Your task to perform on an android device: Go to accessibility settings Image 0: 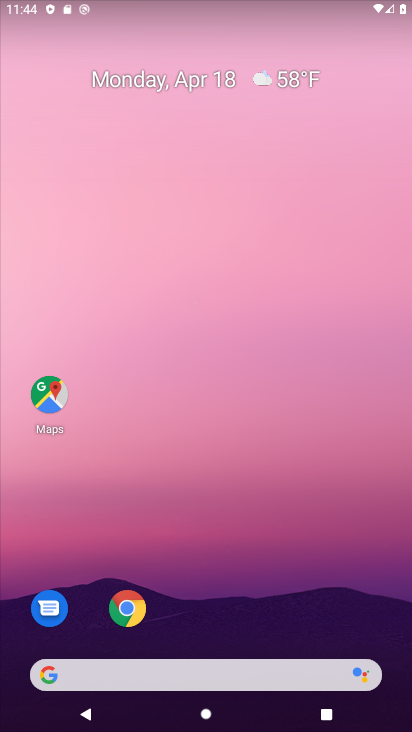
Step 0: drag from (303, 571) to (282, 137)
Your task to perform on an android device: Go to accessibility settings Image 1: 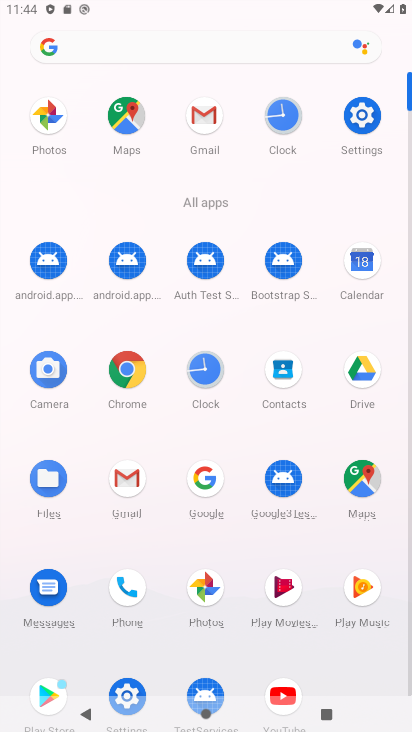
Step 1: click (357, 118)
Your task to perform on an android device: Go to accessibility settings Image 2: 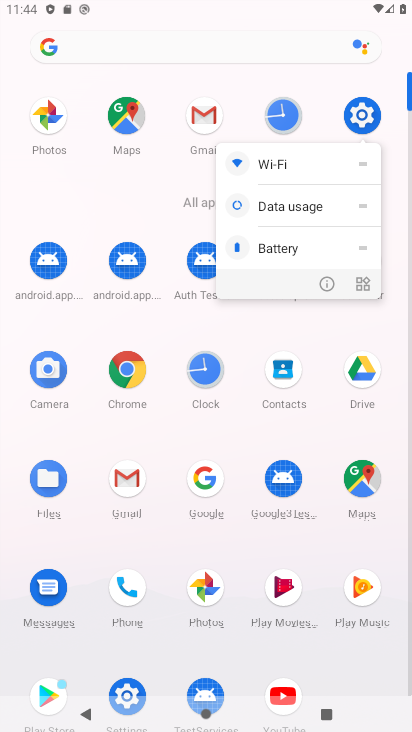
Step 2: click (134, 689)
Your task to perform on an android device: Go to accessibility settings Image 3: 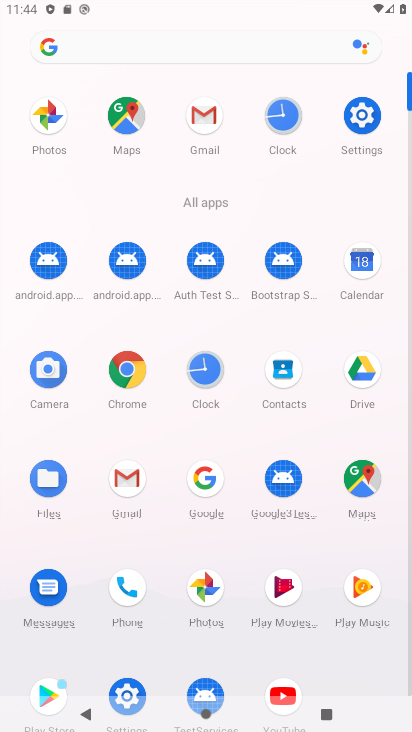
Step 3: drag from (174, 533) to (176, 311)
Your task to perform on an android device: Go to accessibility settings Image 4: 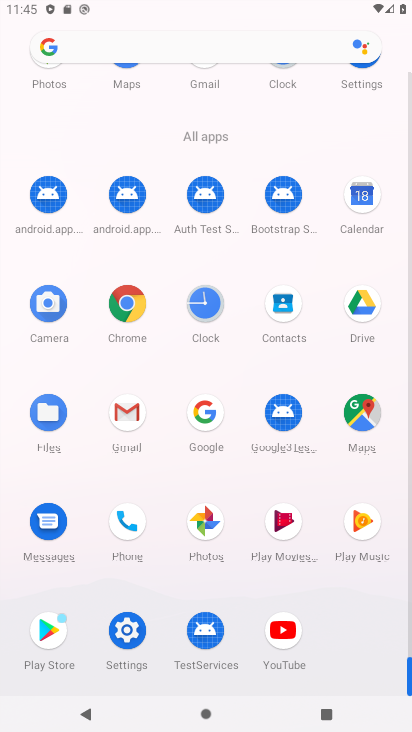
Step 4: click (127, 636)
Your task to perform on an android device: Go to accessibility settings Image 5: 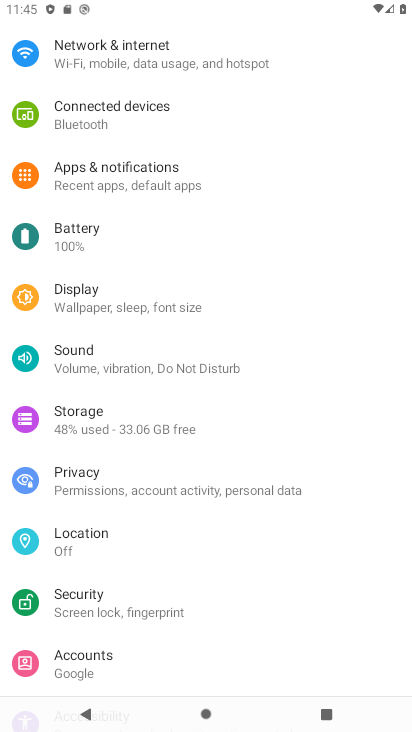
Step 5: drag from (251, 624) to (261, 108)
Your task to perform on an android device: Go to accessibility settings Image 6: 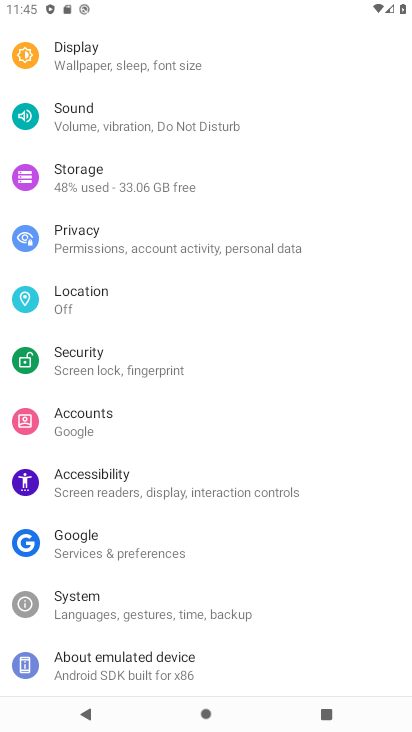
Step 6: click (156, 491)
Your task to perform on an android device: Go to accessibility settings Image 7: 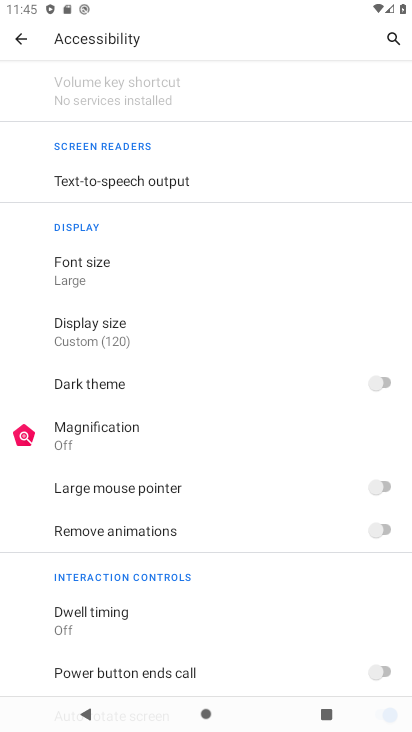
Step 7: task complete